Your task to perform on an android device: add a contact Image 0: 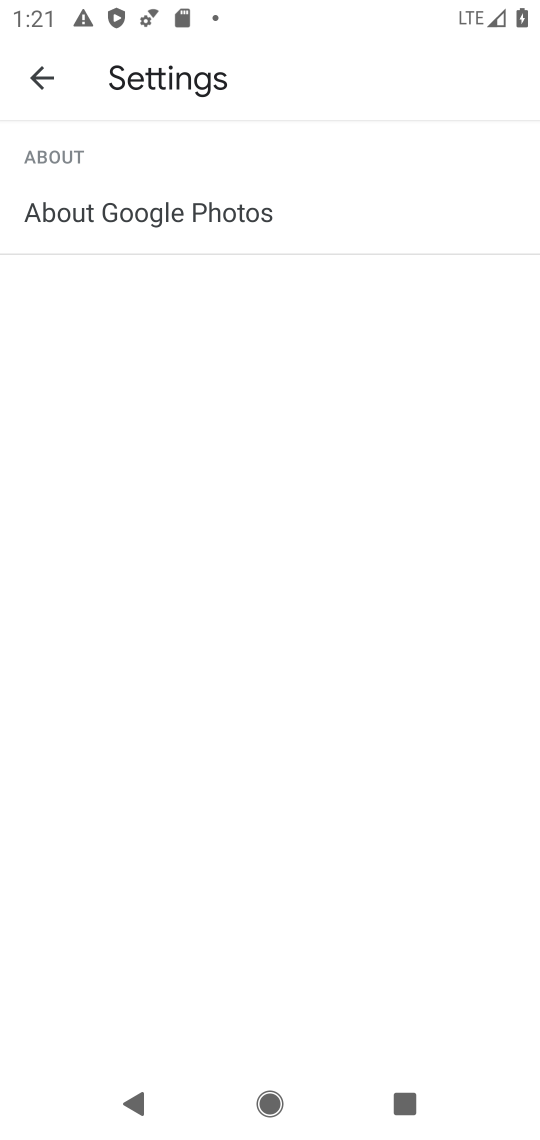
Step 0: press home button
Your task to perform on an android device: add a contact Image 1: 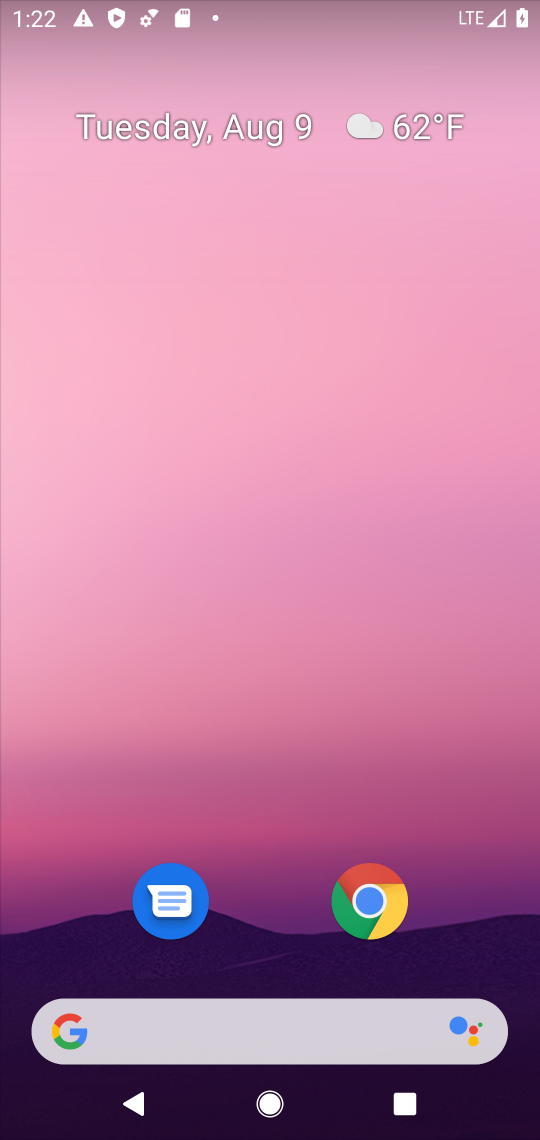
Step 1: drag from (524, 995) to (430, 251)
Your task to perform on an android device: add a contact Image 2: 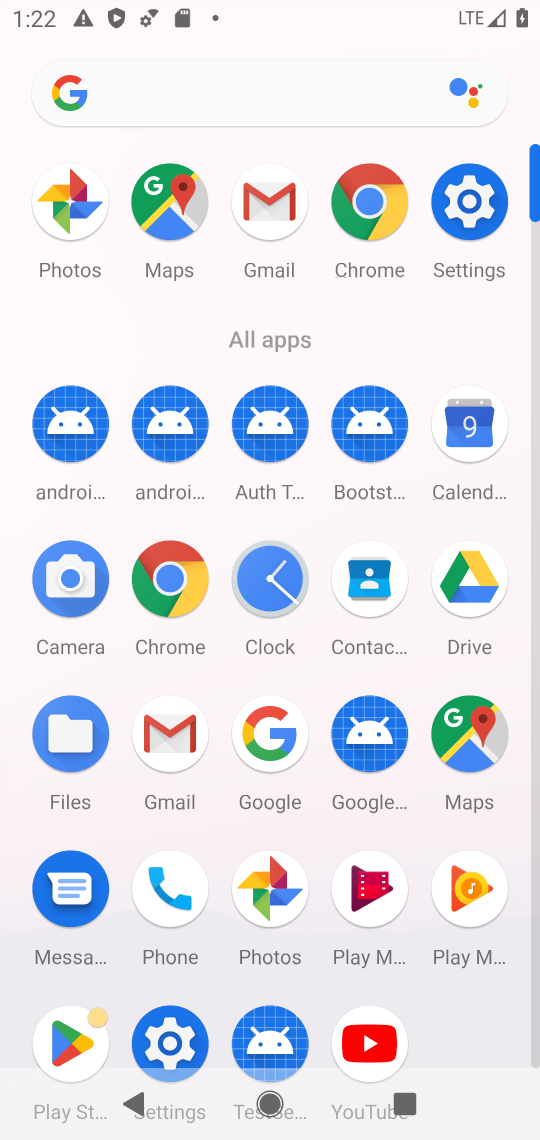
Step 2: click (365, 580)
Your task to perform on an android device: add a contact Image 3: 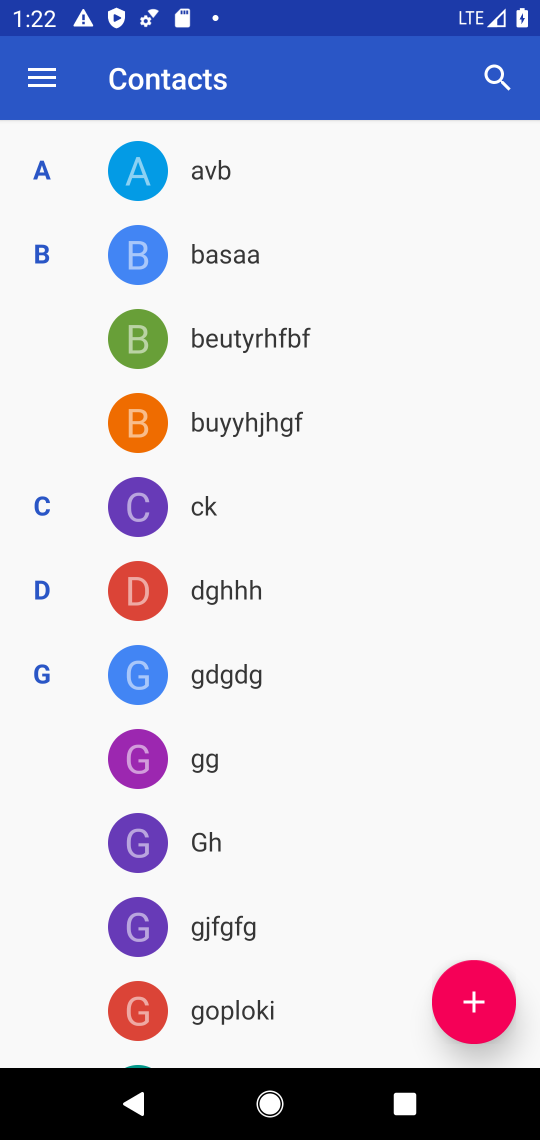
Step 3: click (479, 999)
Your task to perform on an android device: add a contact Image 4: 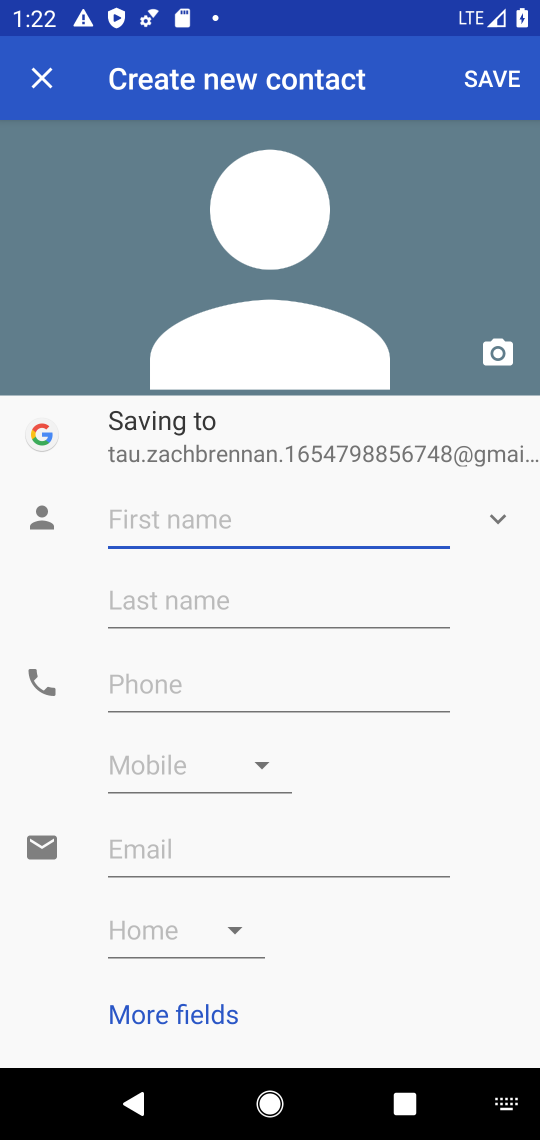
Step 4: type "mhnvbcbfg"
Your task to perform on an android device: add a contact Image 5: 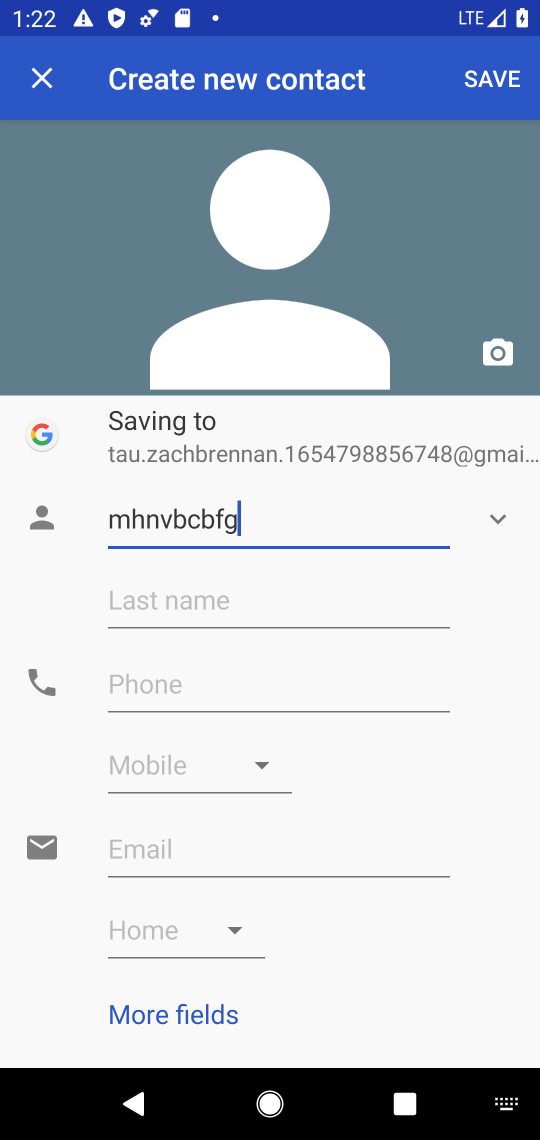
Step 5: click (198, 690)
Your task to perform on an android device: add a contact Image 6: 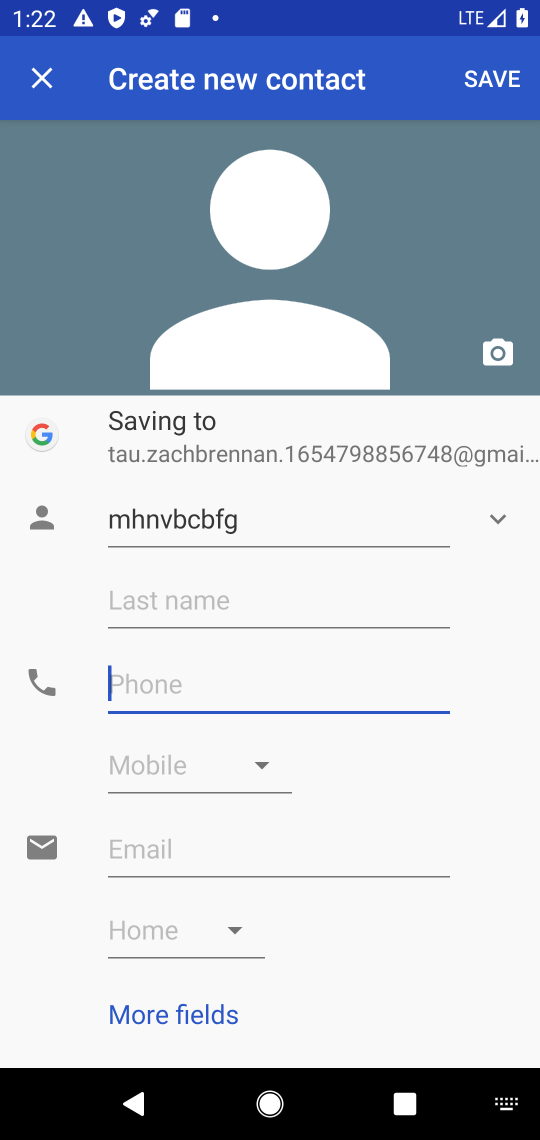
Step 6: type "09875646576"
Your task to perform on an android device: add a contact Image 7: 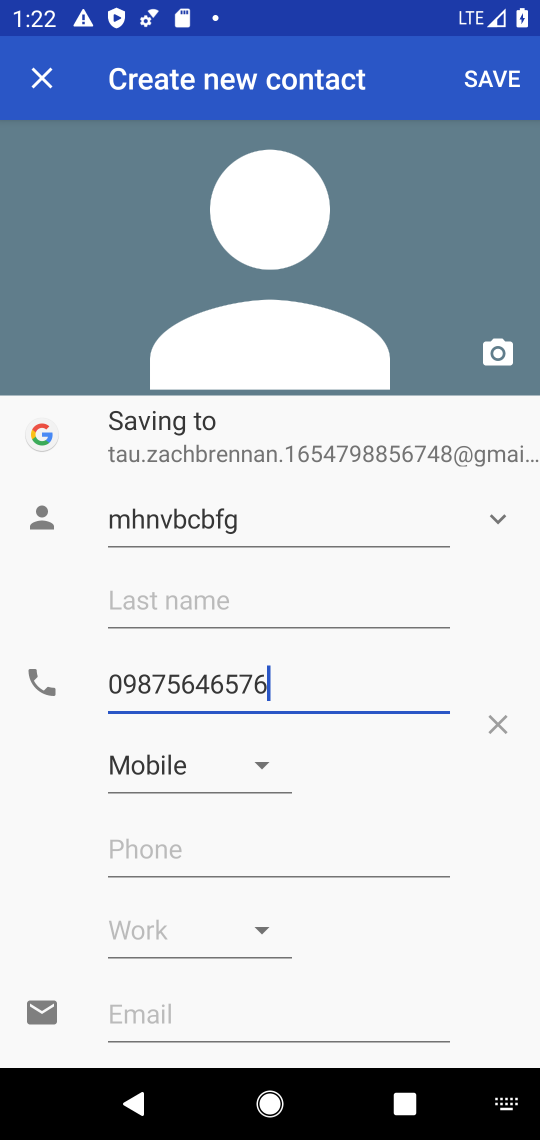
Step 7: click (496, 76)
Your task to perform on an android device: add a contact Image 8: 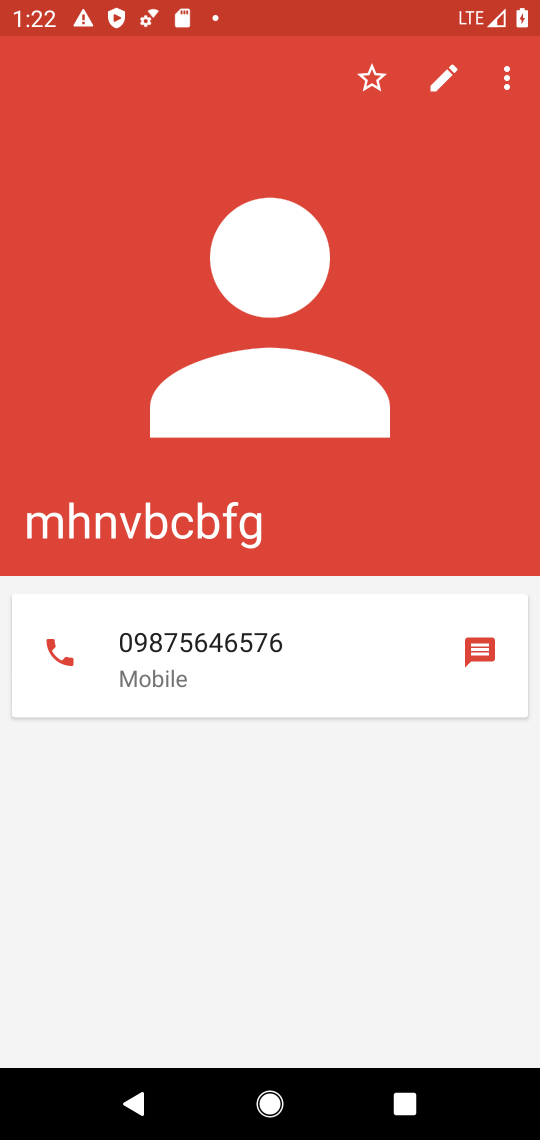
Step 8: task complete